Your task to perform on an android device: turn off location history Image 0: 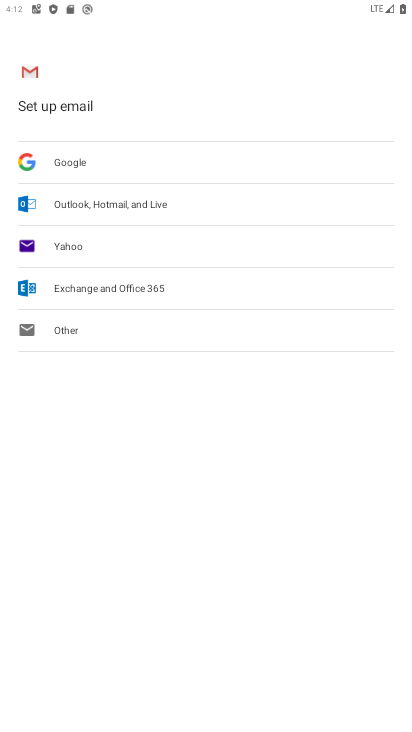
Step 0: press home button
Your task to perform on an android device: turn off location history Image 1: 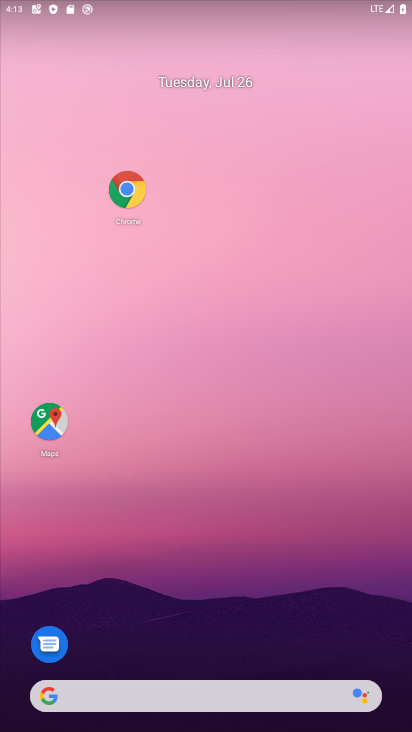
Step 1: drag from (241, 681) to (232, 250)
Your task to perform on an android device: turn off location history Image 2: 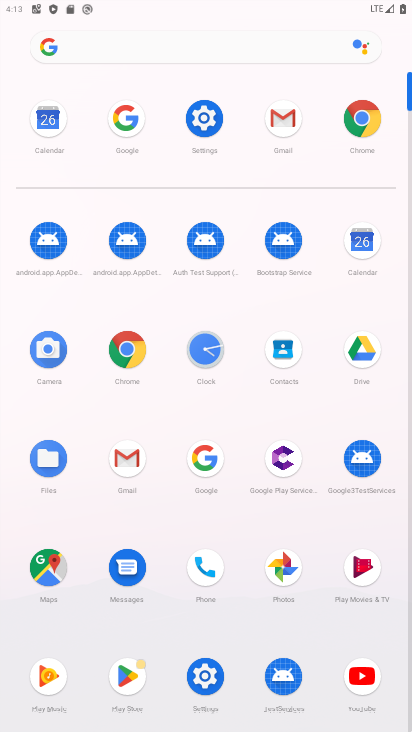
Step 2: click (197, 125)
Your task to perform on an android device: turn off location history Image 3: 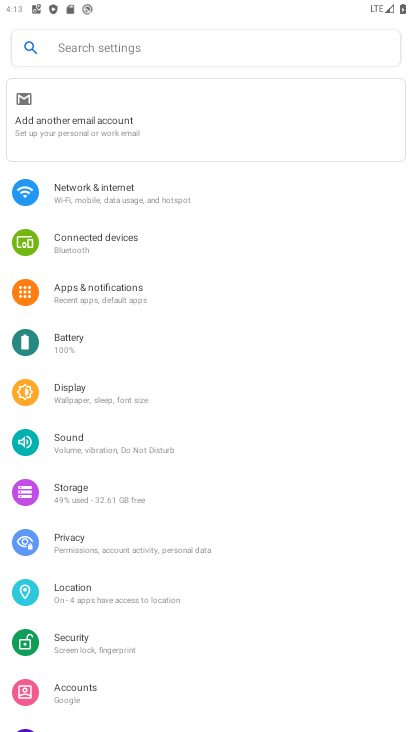
Step 3: click (85, 593)
Your task to perform on an android device: turn off location history Image 4: 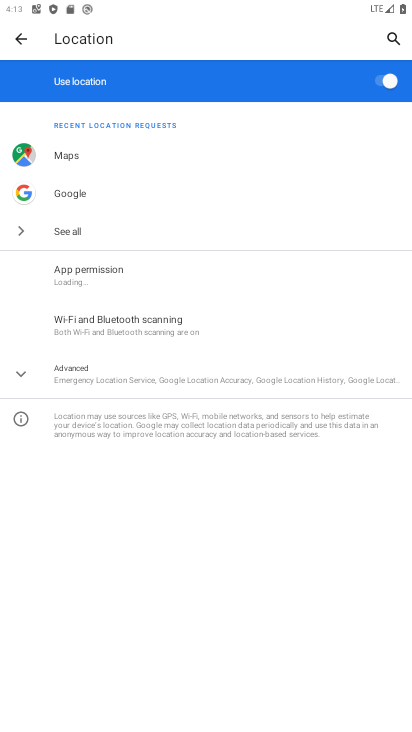
Step 4: click (93, 374)
Your task to perform on an android device: turn off location history Image 5: 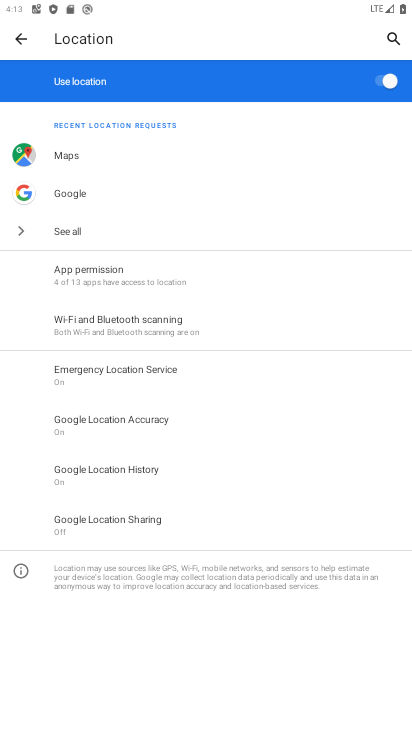
Step 5: click (129, 468)
Your task to perform on an android device: turn off location history Image 6: 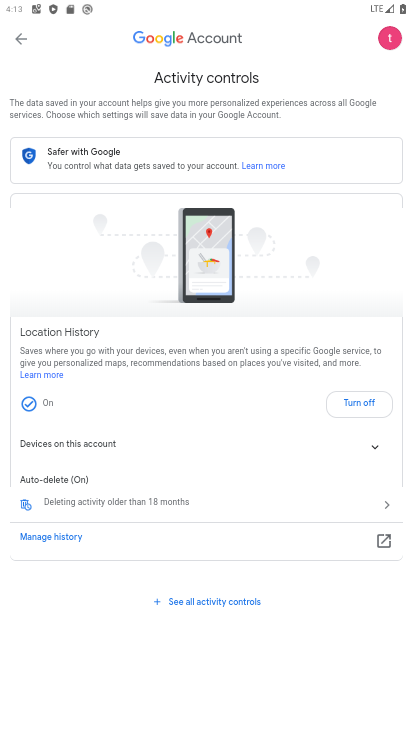
Step 6: click (348, 395)
Your task to perform on an android device: turn off location history Image 7: 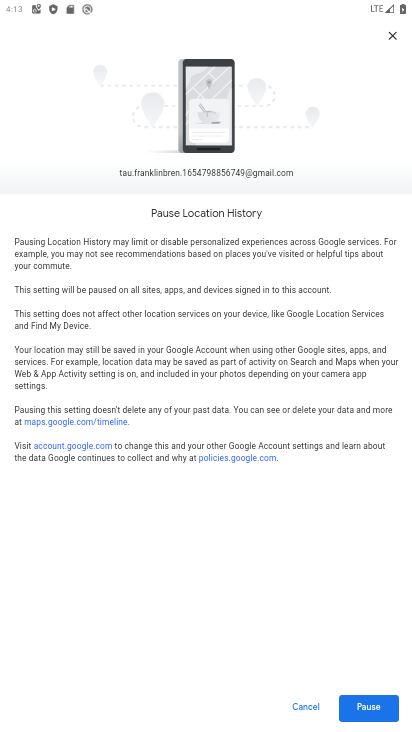
Step 7: click (384, 719)
Your task to perform on an android device: turn off location history Image 8: 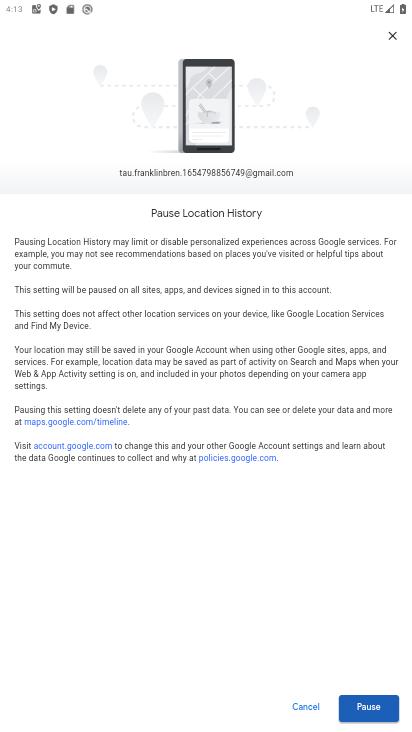
Step 8: click (377, 705)
Your task to perform on an android device: turn off location history Image 9: 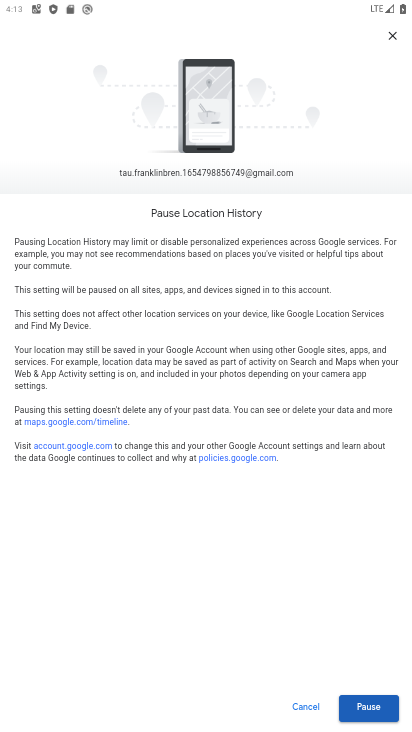
Step 9: click (362, 718)
Your task to perform on an android device: turn off location history Image 10: 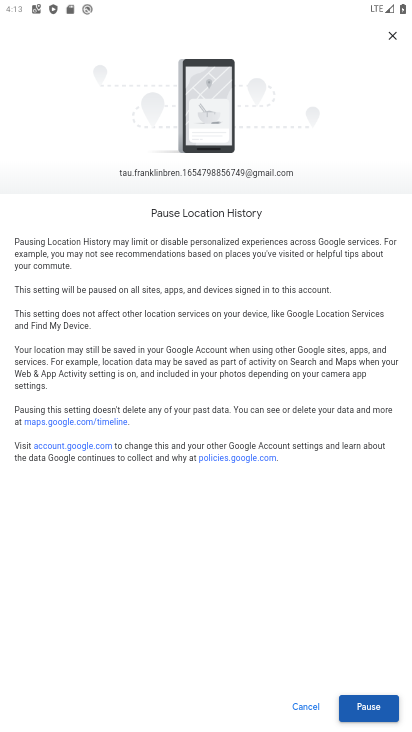
Step 10: click (356, 709)
Your task to perform on an android device: turn off location history Image 11: 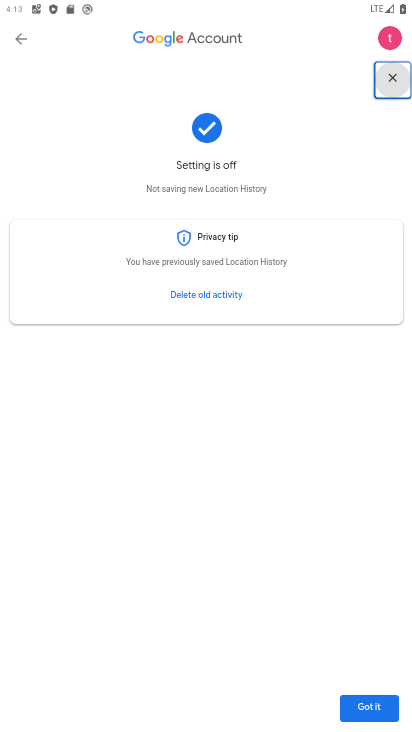
Step 11: click (380, 705)
Your task to perform on an android device: turn off location history Image 12: 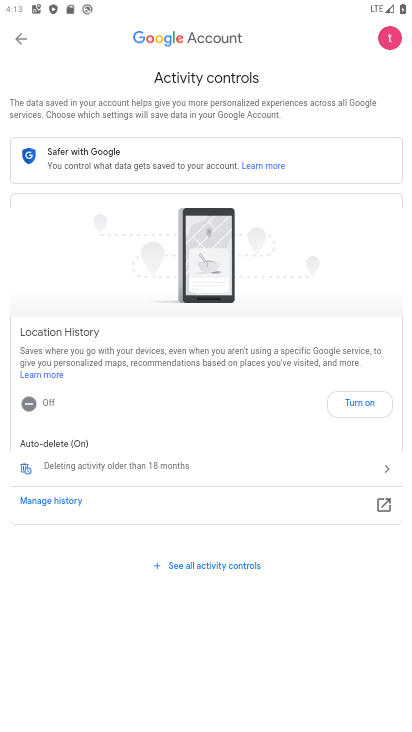
Step 12: task complete